Your task to perform on an android device: Open Google Maps and go to "Timeline" Image 0: 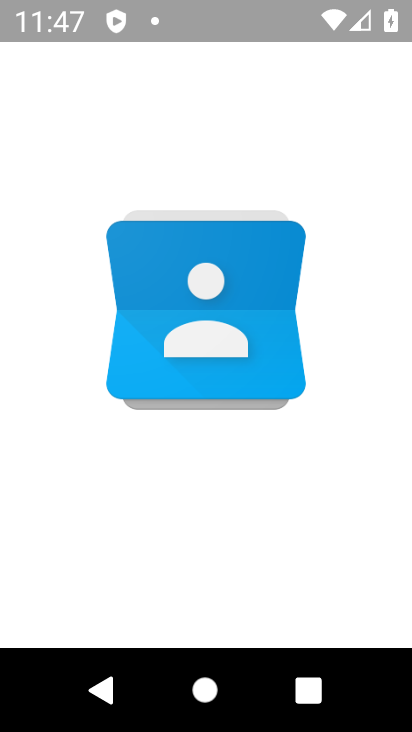
Step 0: drag from (130, 541) to (204, 177)
Your task to perform on an android device: Open Google Maps and go to "Timeline" Image 1: 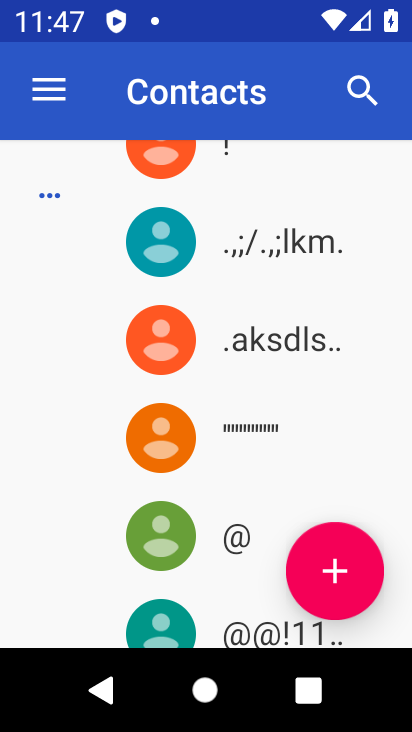
Step 1: press home button
Your task to perform on an android device: Open Google Maps and go to "Timeline" Image 2: 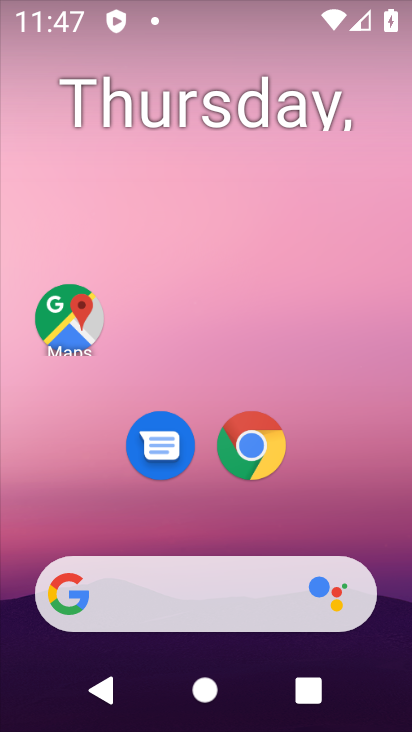
Step 2: click (60, 303)
Your task to perform on an android device: Open Google Maps and go to "Timeline" Image 3: 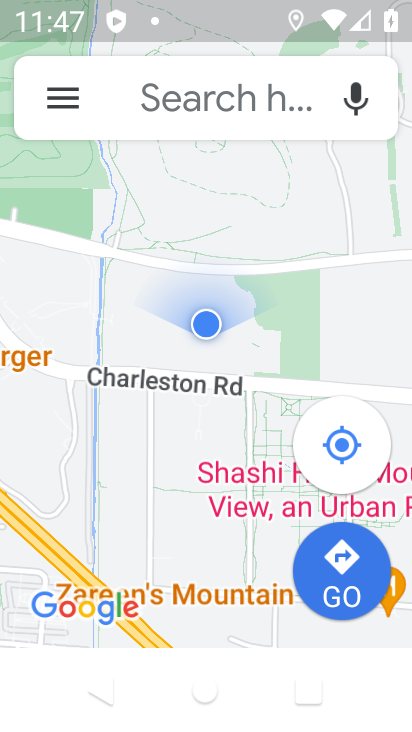
Step 3: click (86, 108)
Your task to perform on an android device: Open Google Maps and go to "Timeline" Image 4: 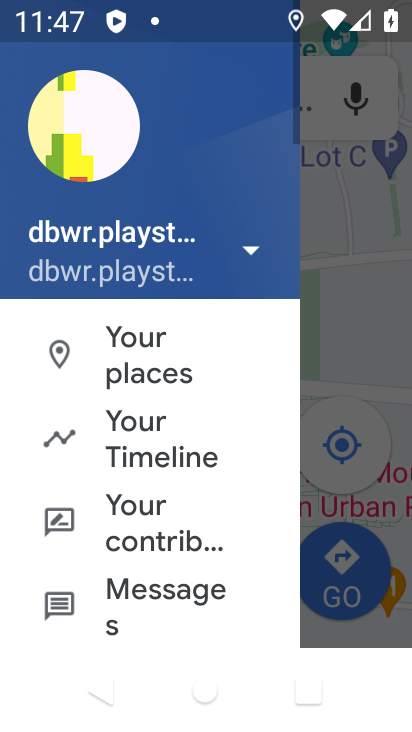
Step 4: click (194, 464)
Your task to perform on an android device: Open Google Maps and go to "Timeline" Image 5: 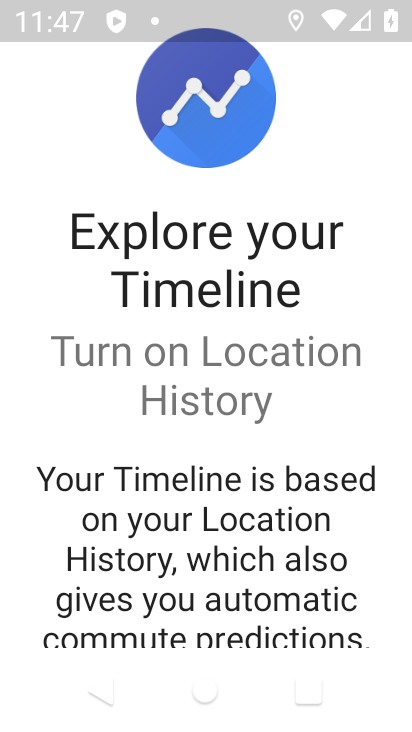
Step 5: drag from (251, 615) to (341, 257)
Your task to perform on an android device: Open Google Maps and go to "Timeline" Image 6: 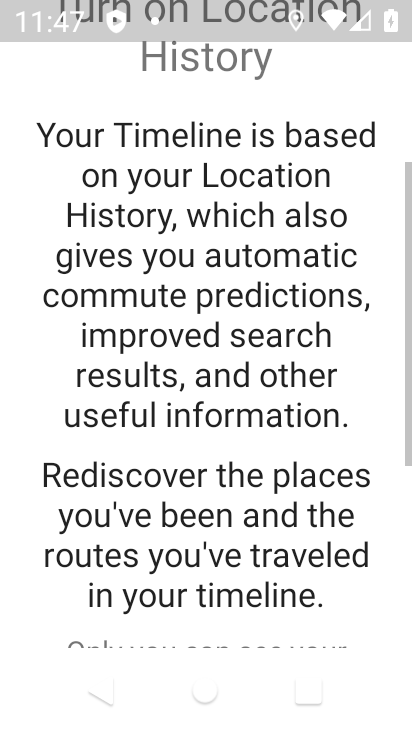
Step 6: drag from (169, 604) to (279, 233)
Your task to perform on an android device: Open Google Maps and go to "Timeline" Image 7: 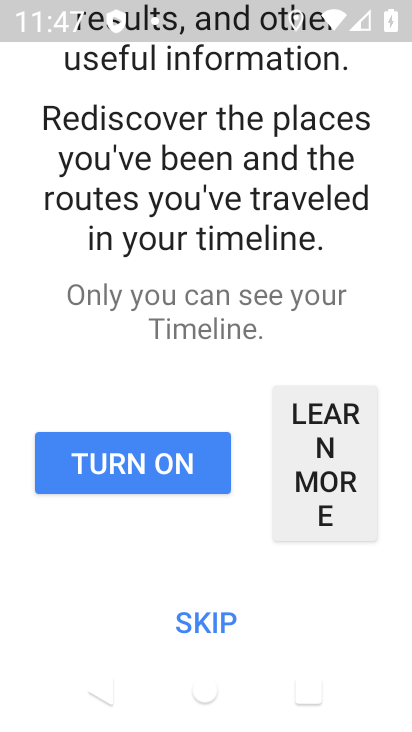
Step 7: click (206, 618)
Your task to perform on an android device: Open Google Maps and go to "Timeline" Image 8: 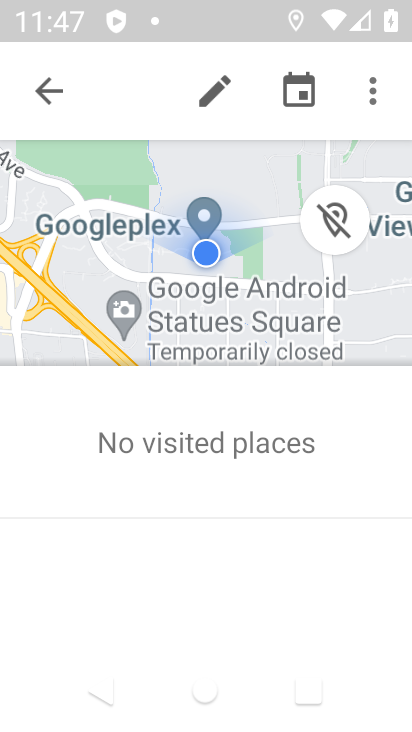
Step 8: task complete